Your task to perform on an android device: Open Google Maps Image 0: 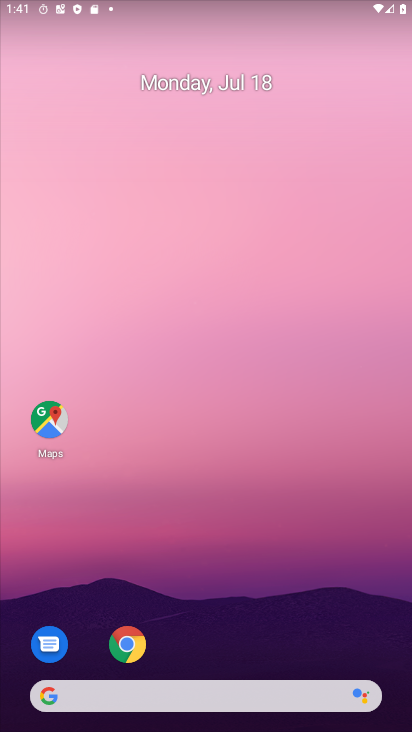
Step 0: click (56, 412)
Your task to perform on an android device: Open Google Maps Image 1: 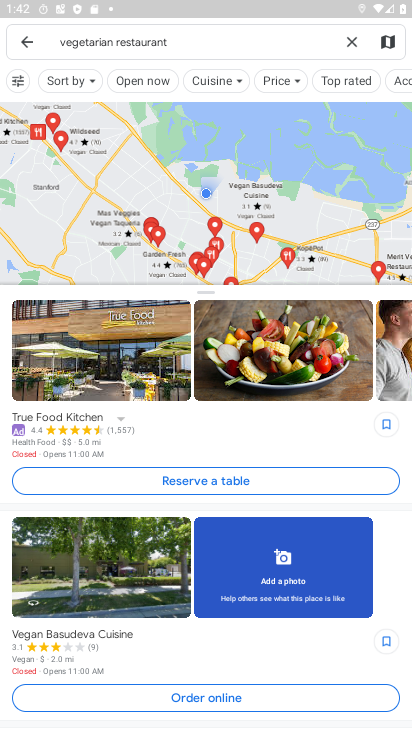
Step 1: task complete